Your task to perform on an android device: toggle priority inbox in the gmail app Image 0: 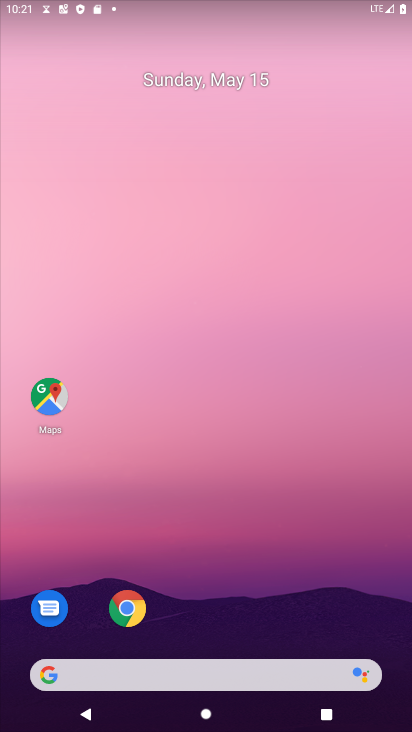
Step 0: drag from (341, 566) to (374, 98)
Your task to perform on an android device: toggle priority inbox in the gmail app Image 1: 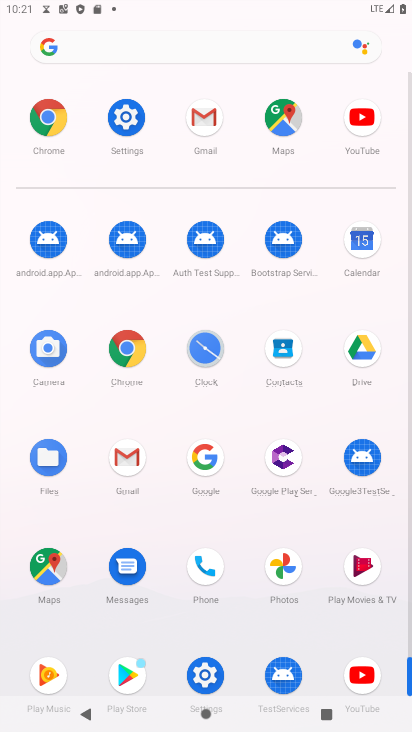
Step 1: click (208, 110)
Your task to perform on an android device: toggle priority inbox in the gmail app Image 2: 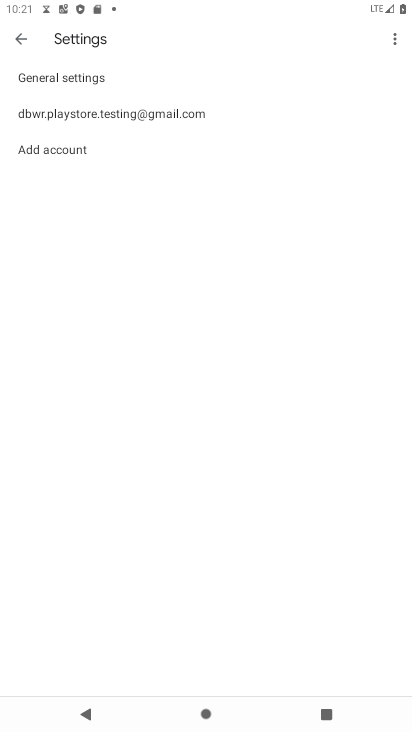
Step 2: click (75, 125)
Your task to perform on an android device: toggle priority inbox in the gmail app Image 3: 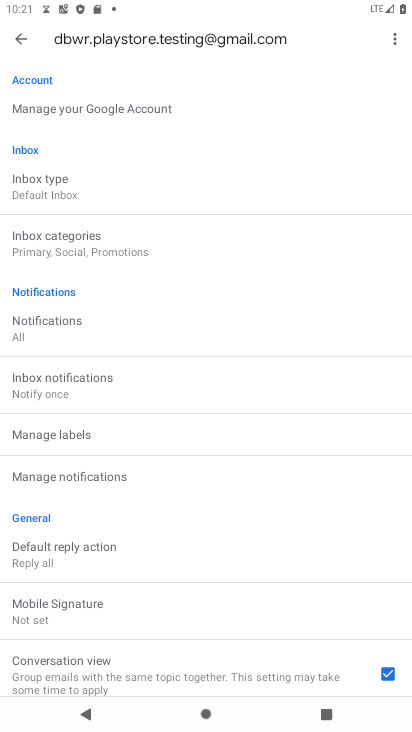
Step 3: click (55, 196)
Your task to perform on an android device: toggle priority inbox in the gmail app Image 4: 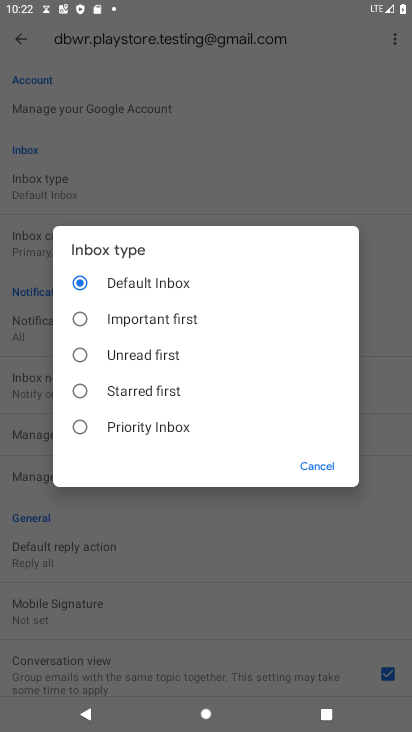
Step 4: click (164, 419)
Your task to perform on an android device: toggle priority inbox in the gmail app Image 5: 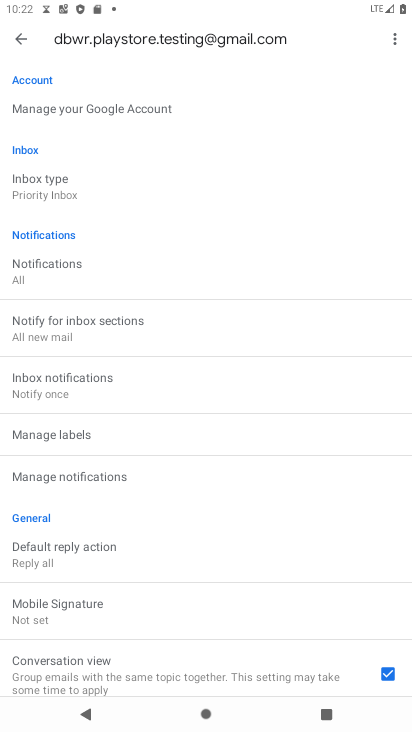
Step 5: task complete